Your task to perform on an android device: Open notification settings Image 0: 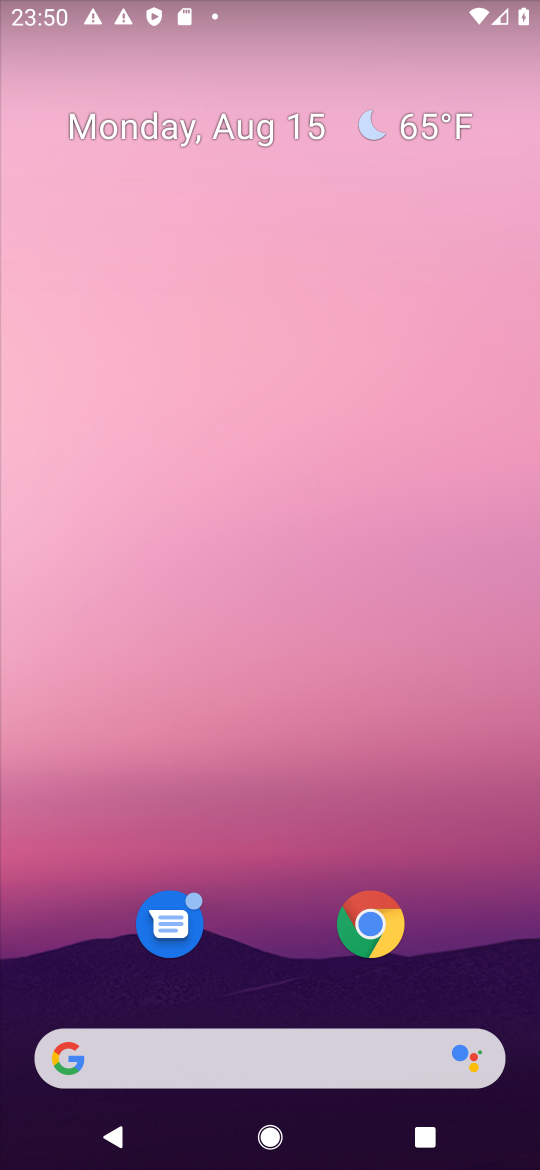
Step 0: drag from (274, 902) to (148, 293)
Your task to perform on an android device: Open notification settings Image 1: 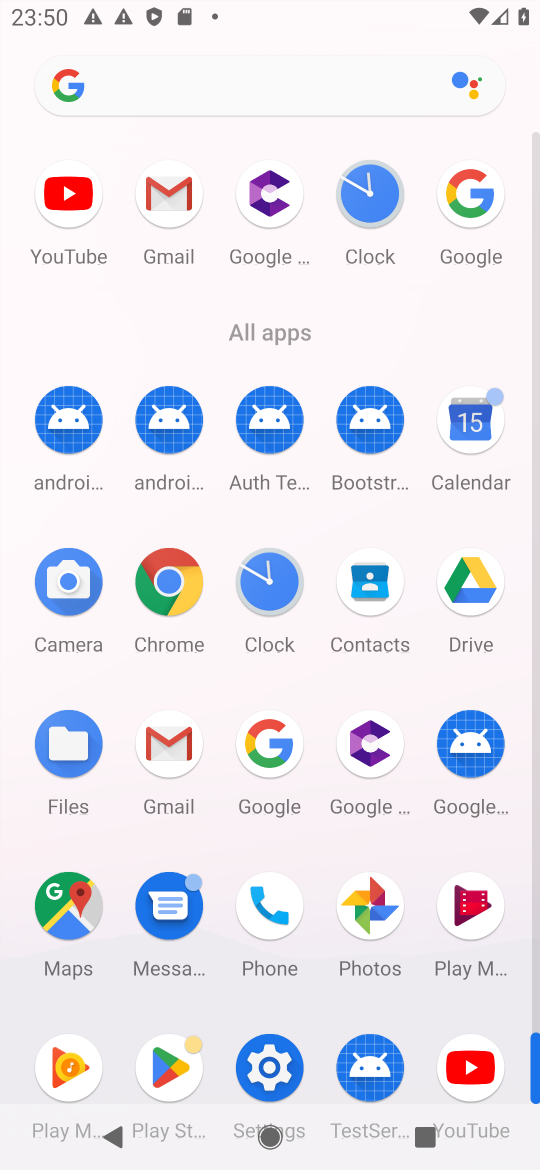
Step 1: click (268, 1041)
Your task to perform on an android device: Open notification settings Image 2: 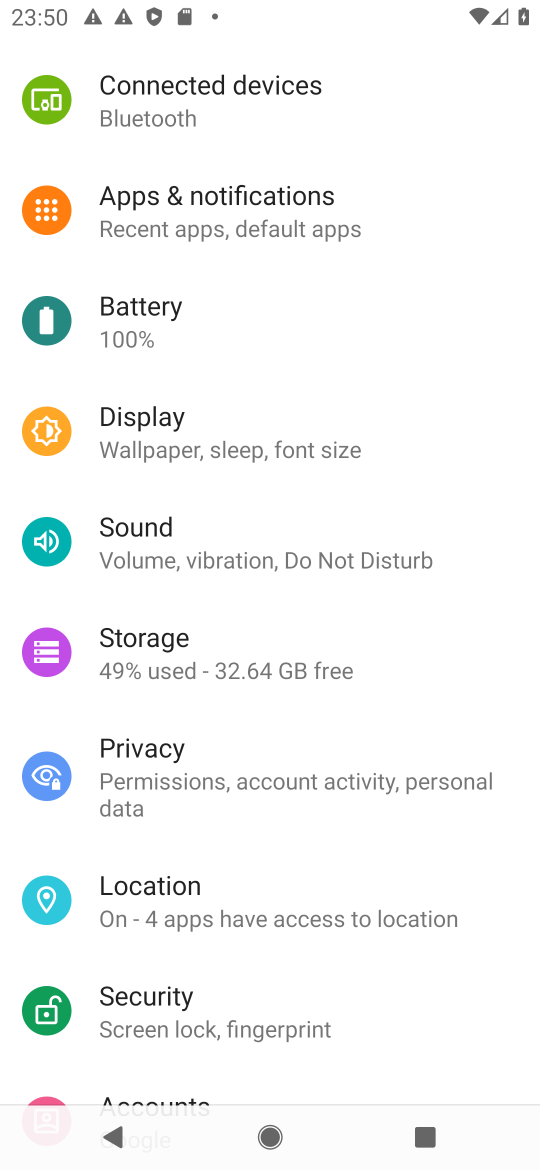
Step 2: click (276, 224)
Your task to perform on an android device: Open notification settings Image 3: 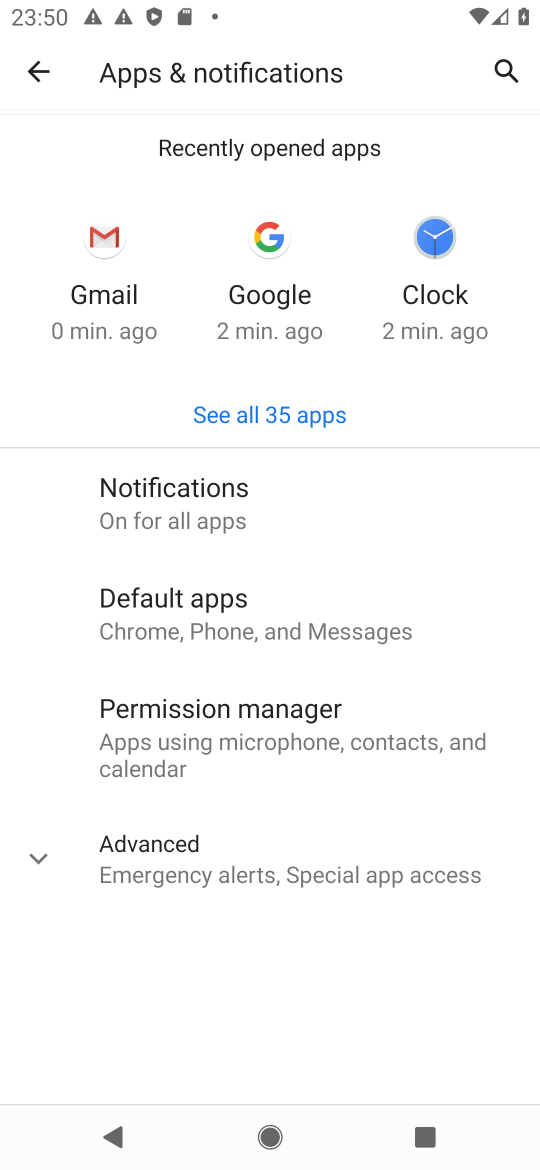
Step 3: click (328, 489)
Your task to perform on an android device: Open notification settings Image 4: 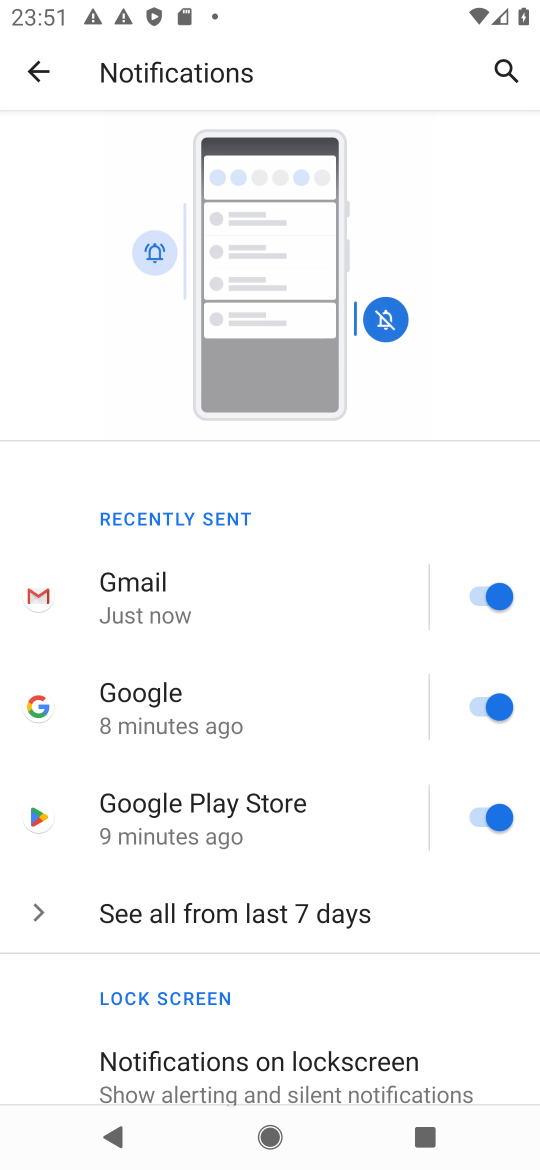
Step 4: task complete